Your task to perform on an android device: Is it going to rain this weekend? Image 0: 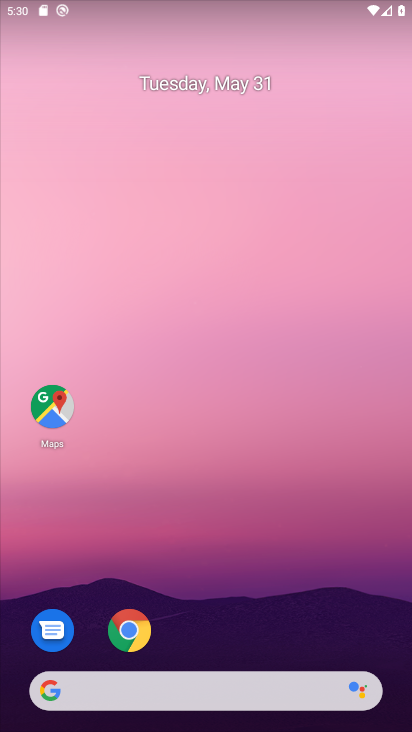
Step 0: click (187, 690)
Your task to perform on an android device: Is it going to rain this weekend? Image 1: 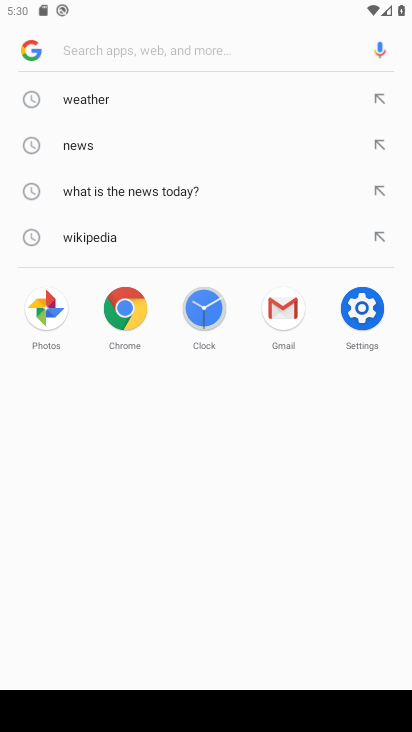
Step 1: click (90, 104)
Your task to perform on an android device: Is it going to rain this weekend? Image 2: 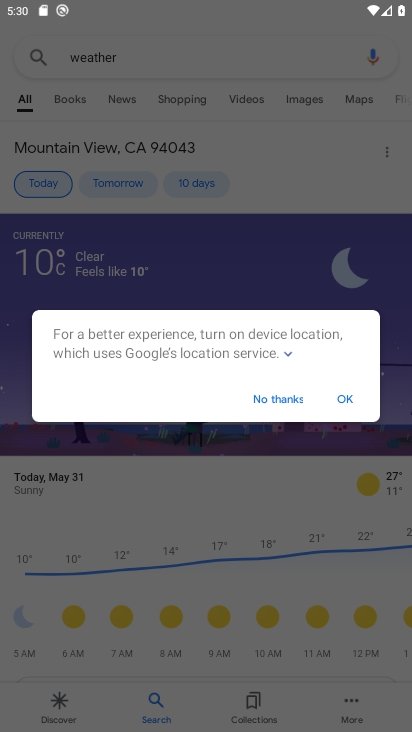
Step 2: click (182, 192)
Your task to perform on an android device: Is it going to rain this weekend? Image 3: 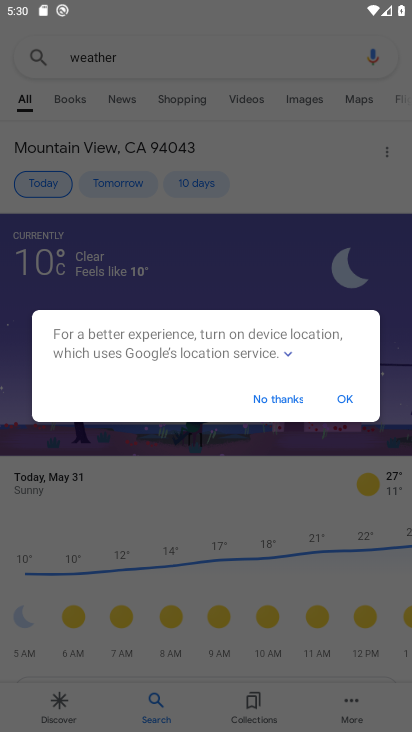
Step 3: click (271, 397)
Your task to perform on an android device: Is it going to rain this weekend? Image 4: 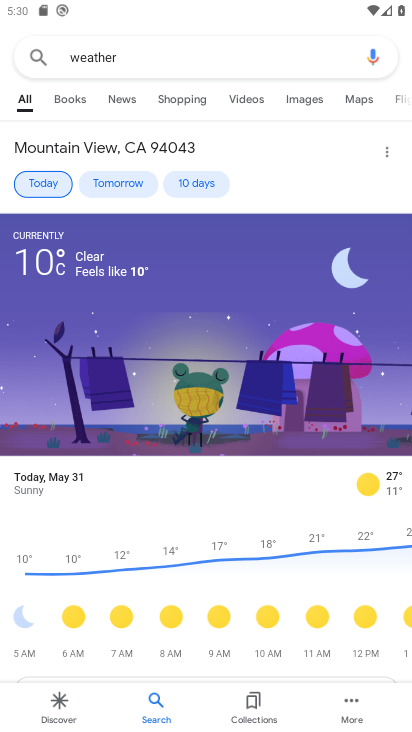
Step 4: click (190, 175)
Your task to perform on an android device: Is it going to rain this weekend? Image 5: 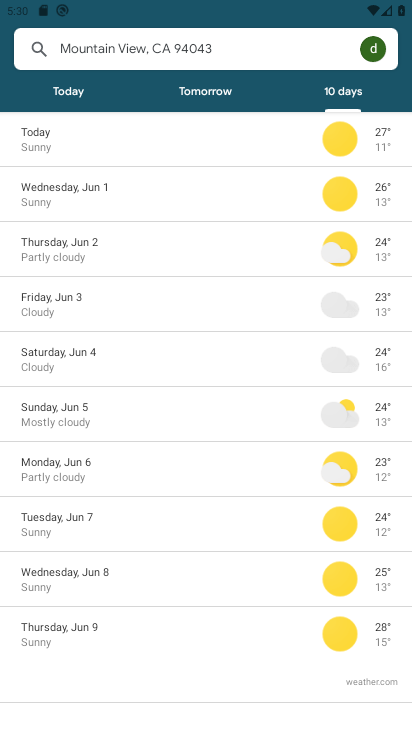
Step 5: task complete